Your task to perform on an android device: Show me recent news Image 0: 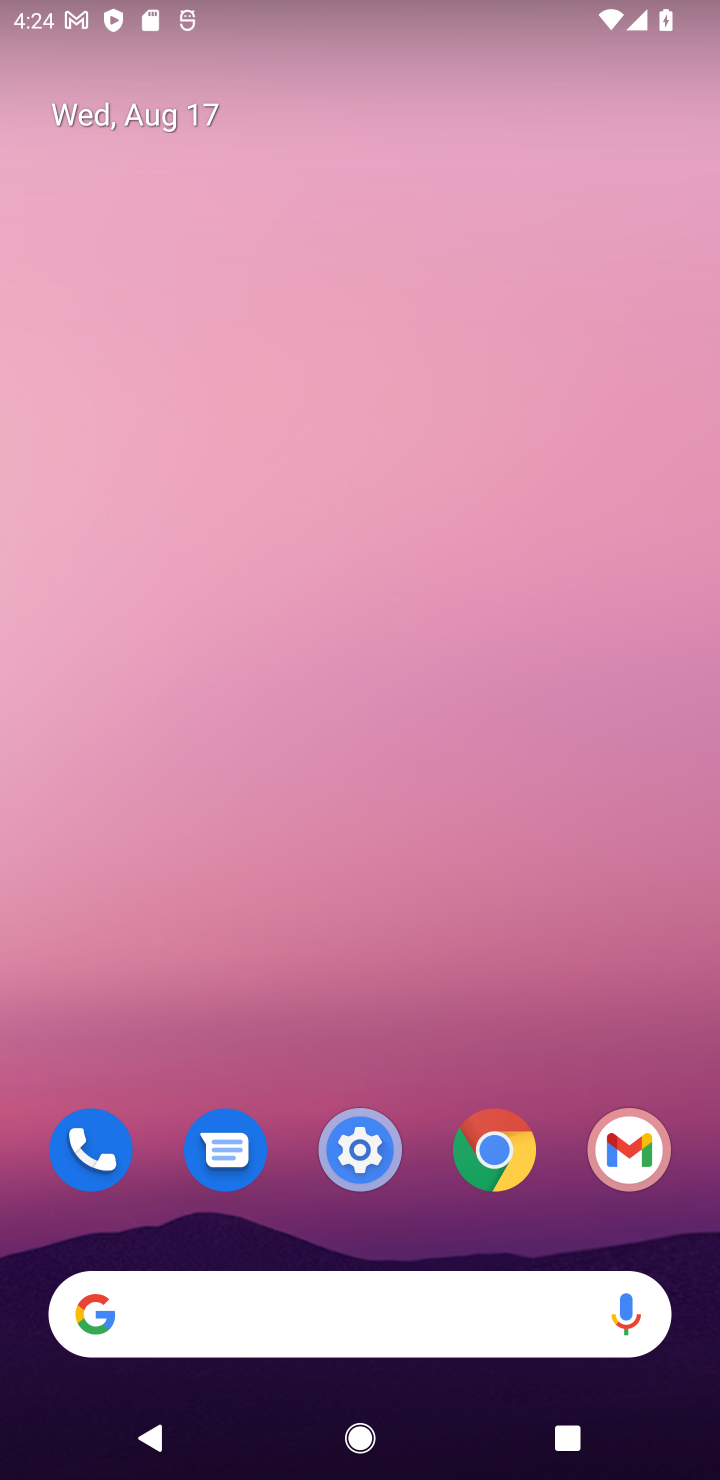
Step 0: drag from (662, 1219) to (495, 44)
Your task to perform on an android device: Show me recent news Image 1: 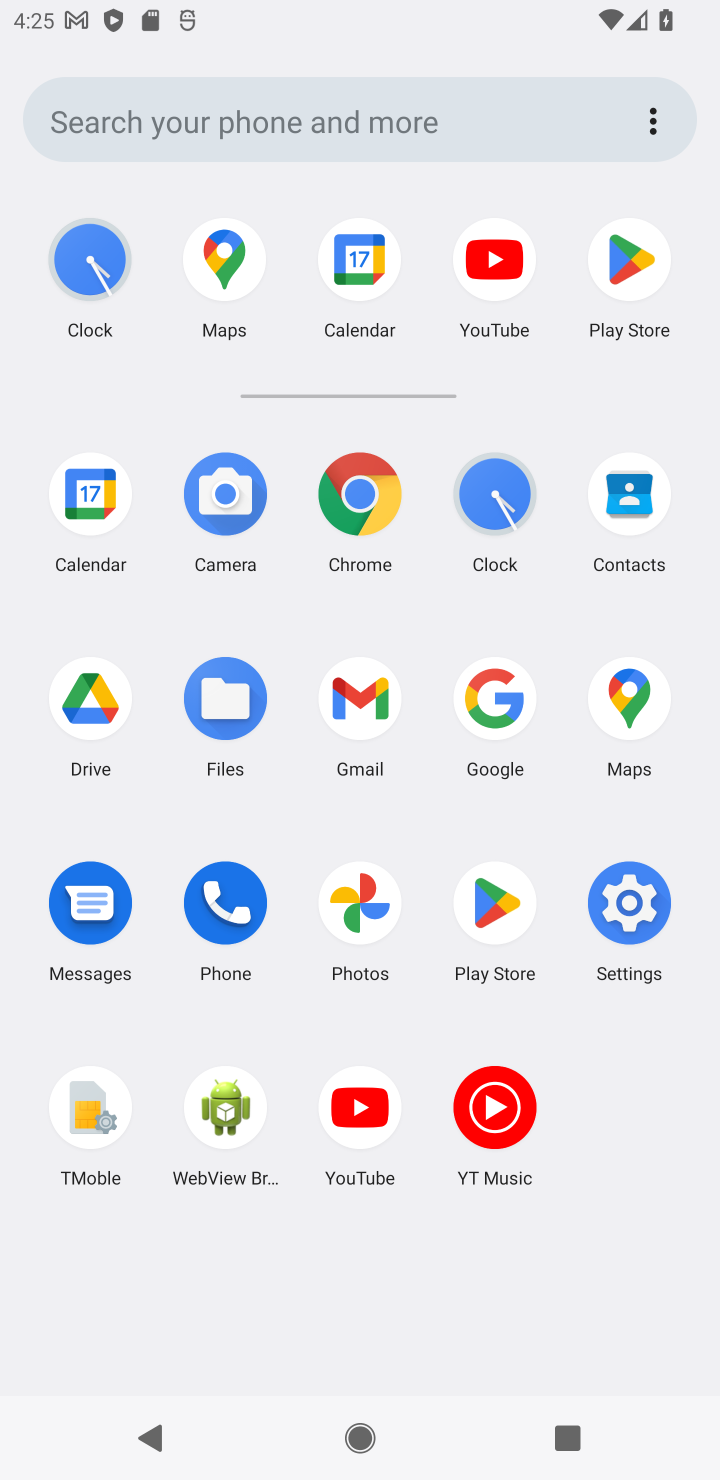
Step 1: click (519, 722)
Your task to perform on an android device: Show me recent news Image 2: 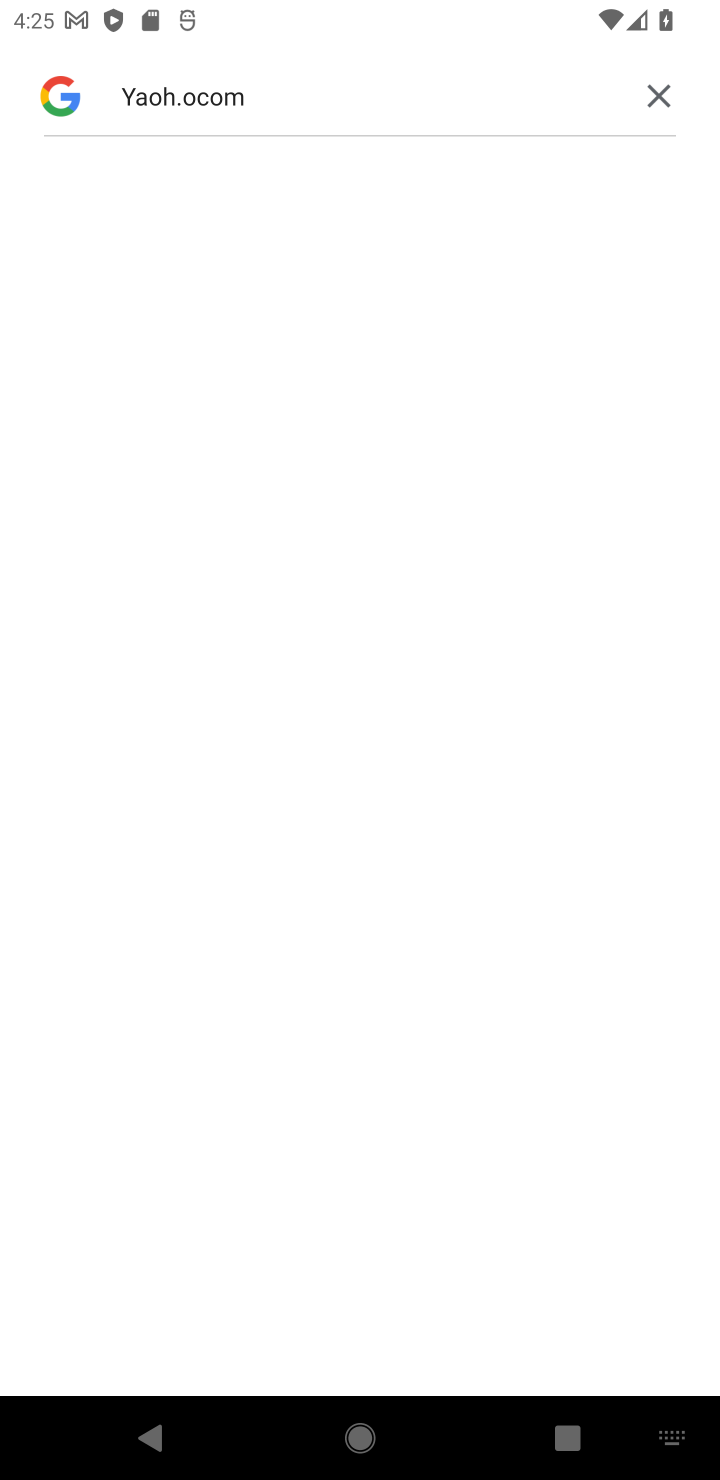
Step 2: click (668, 91)
Your task to perform on an android device: Show me recent news Image 3: 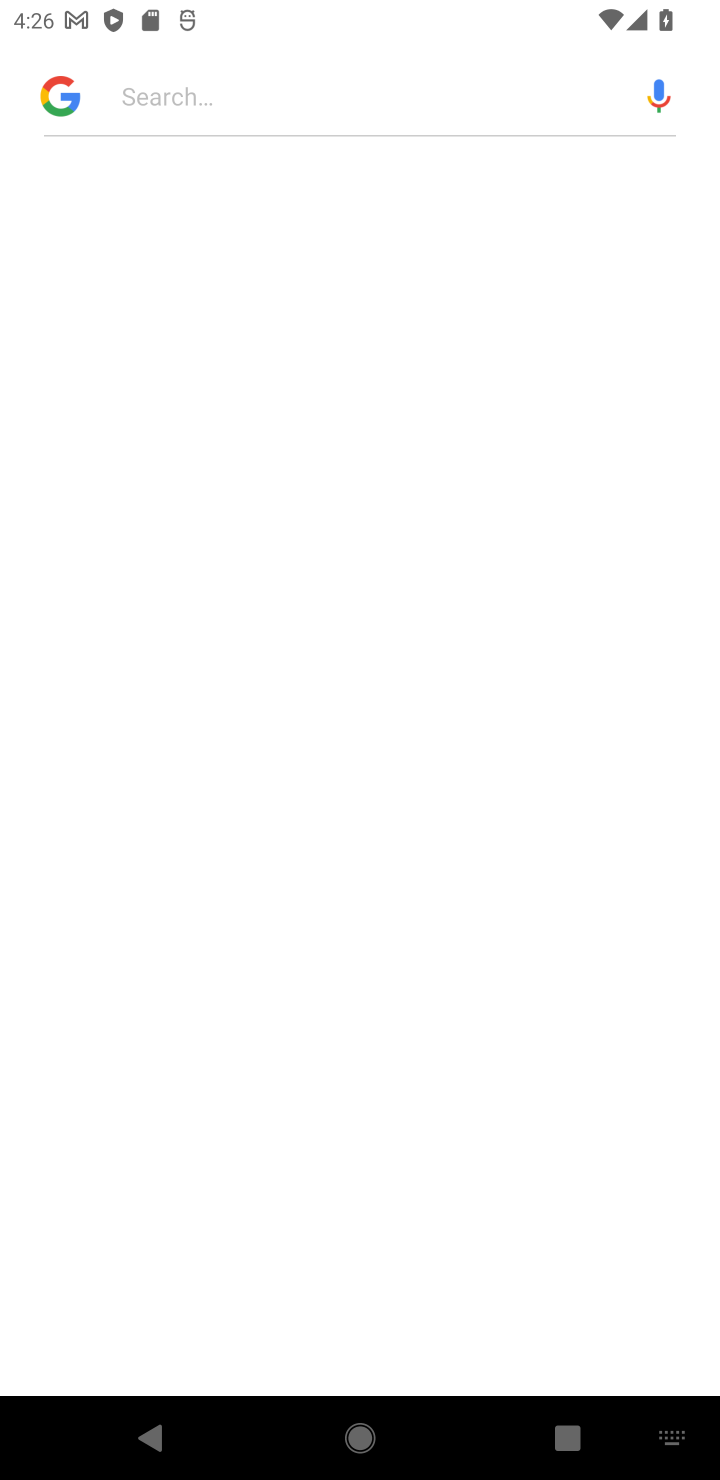
Step 3: task complete